Your task to perform on an android device: Go to calendar. Show me events next week Image 0: 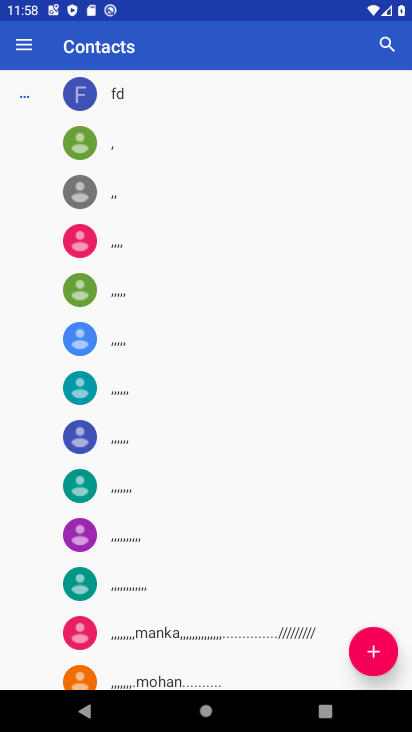
Step 0: press back button
Your task to perform on an android device: Go to calendar. Show me events next week Image 1: 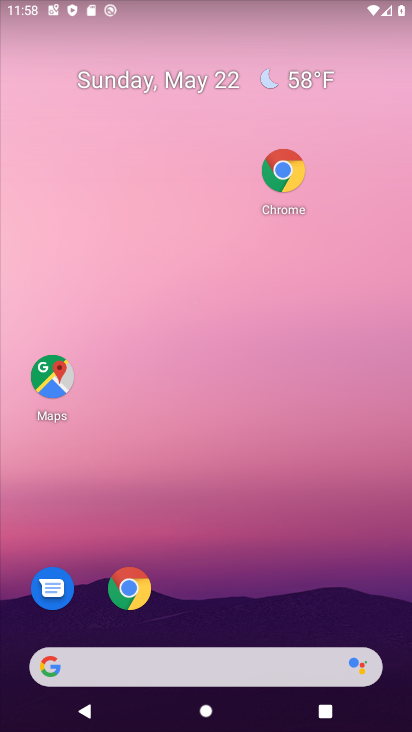
Step 1: drag from (267, 675) to (257, 16)
Your task to perform on an android device: Go to calendar. Show me events next week Image 2: 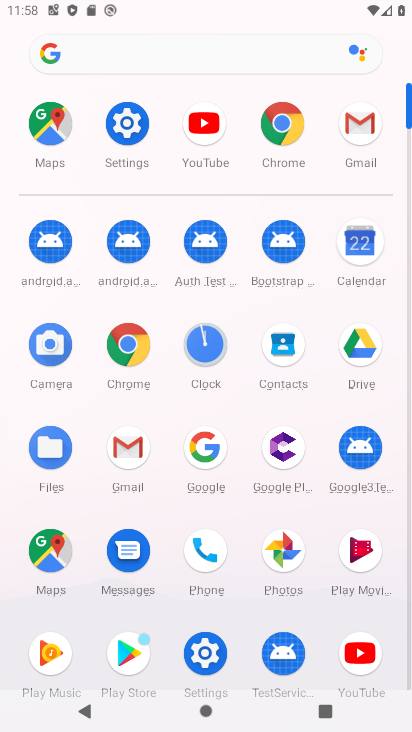
Step 2: click (352, 254)
Your task to perform on an android device: Go to calendar. Show me events next week Image 3: 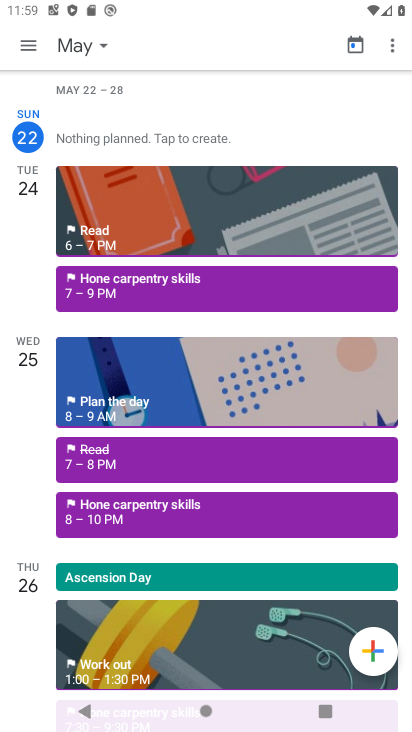
Step 3: click (100, 44)
Your task to perform on an android device: Go to calendar. Show me events next week Image 4: 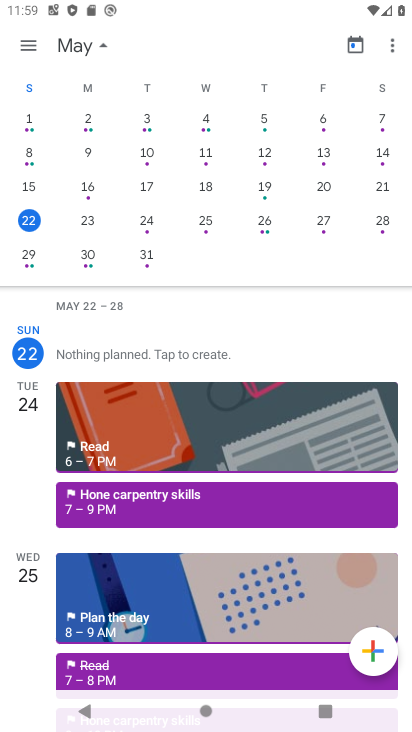
Step 4: drag from (253, 198) to (22, 242)
Your task to perform on an android device: Go to calendar. Show me events next week Image 5: 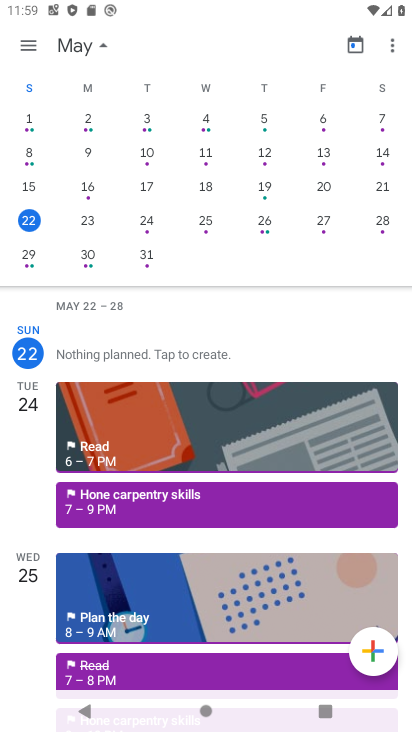
Step 5: drag from (241, 142) to (44, 150)
Your task to perform on an android device: Go to calendar. Show me events next week Image 6: 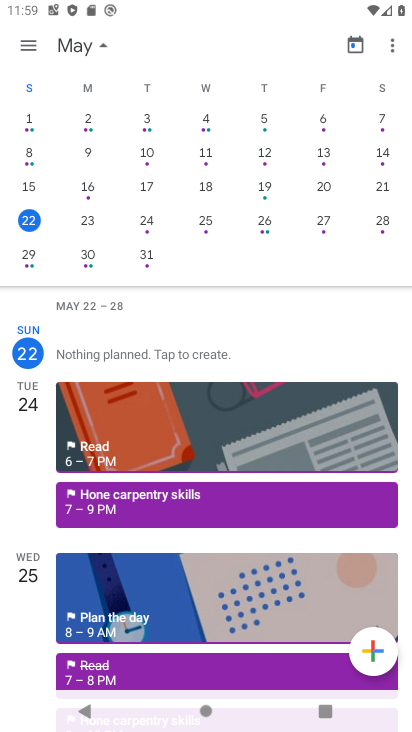
Step 6: drag from (194, 231) to (49, 209)
Your task to perform on an android device: Go to calendar. Show me events next week Image 7: 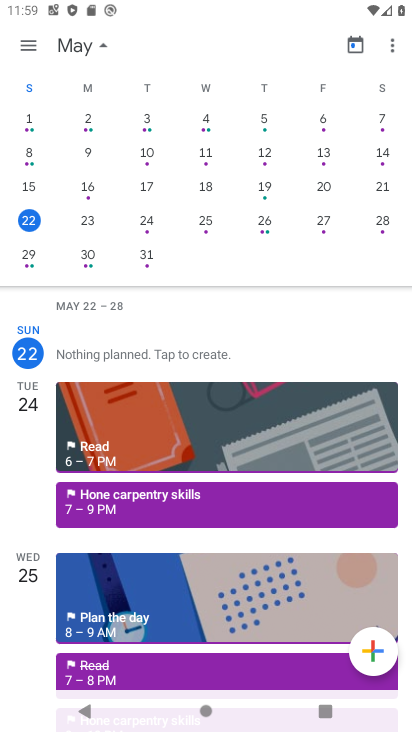
Step 7: drag from (226, 149) to (29, 182)
Your task to perform on an android device: Go to calendar. Show me events next week Image 8: 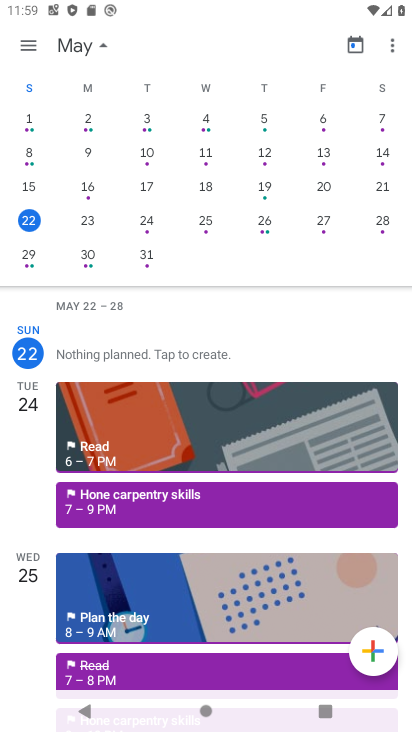
Step 8: drag from (146, 194) to (57, 209)
Your task to perform on an android device: Go to calendar. Show me events next week Image 9: 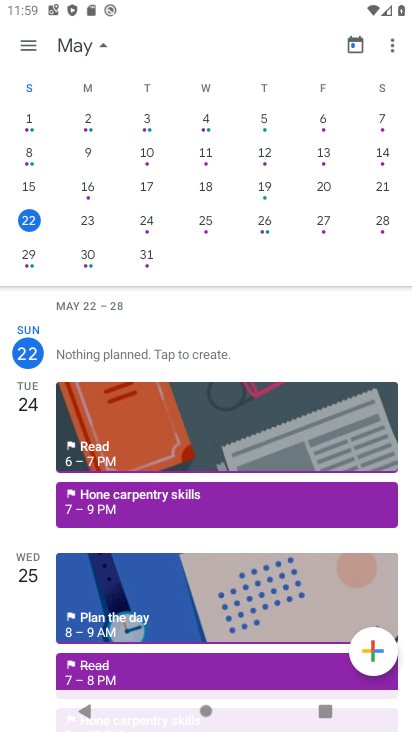
Step 9: drag from (228, 194) to (21, 195)
Your task to perform on an android device: Go to calendar. Show me events next week Image 10: 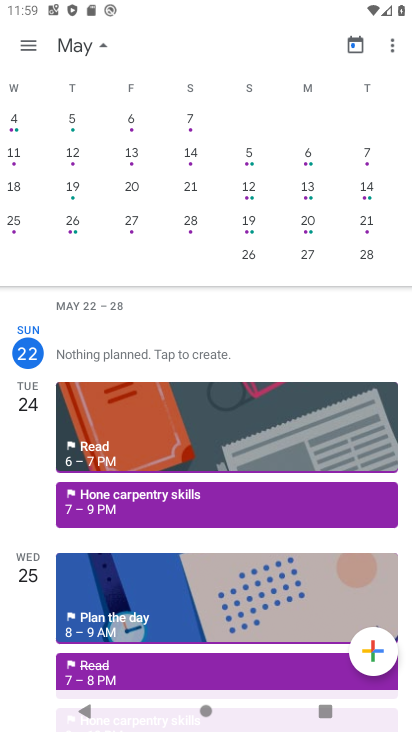
Step 10: drag from (157, 159) to (3, 152)
Your task to perform on an android device: Go to calendar. Show me events next week Image 11: 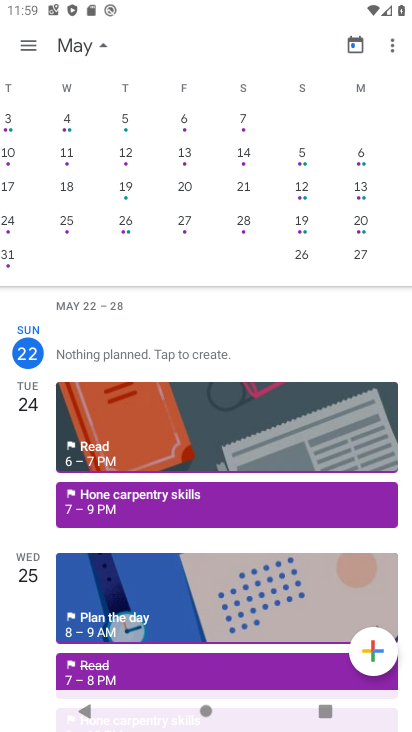
Step 11: drag from (209, 141) to (2, 140)
Your task to perform on an android device: Go to calendar. Show me events next week Image 12: 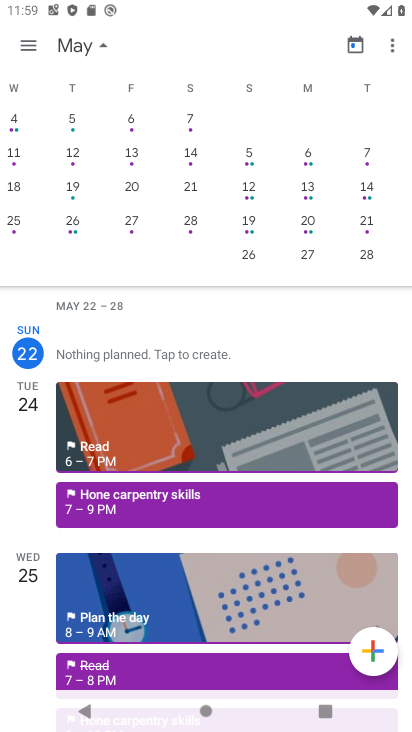
Step 12: drag from (191, 117) to (27, 191)
Your task to perform on an android device: Go to calendar. Show me events next week Image 13: 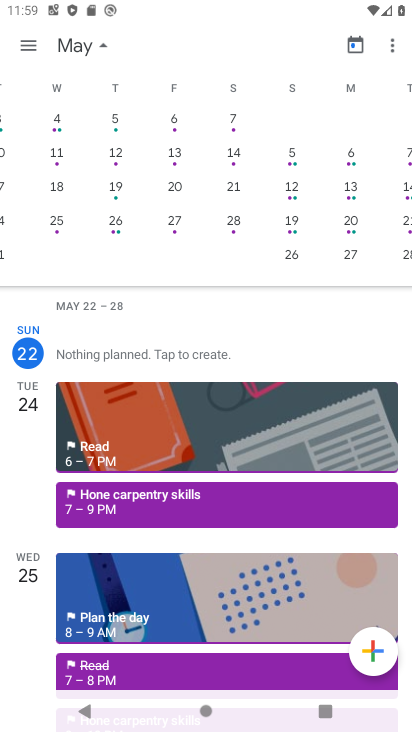
Step 13: drag from (206, 175) to (2, 120)
Your task to perform on an android device: Go to calendar. Show me events next week Image 14: 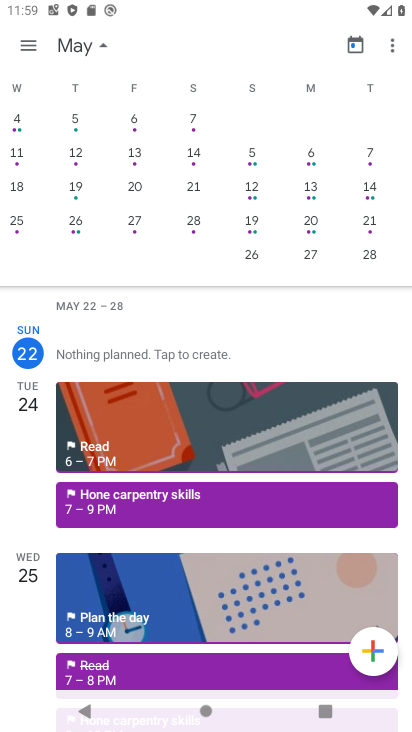
Step 14: drag from (218, 143) to (83, 190)
Your task to perform on an android device: Go to calendar. Show me events next week Image 15: 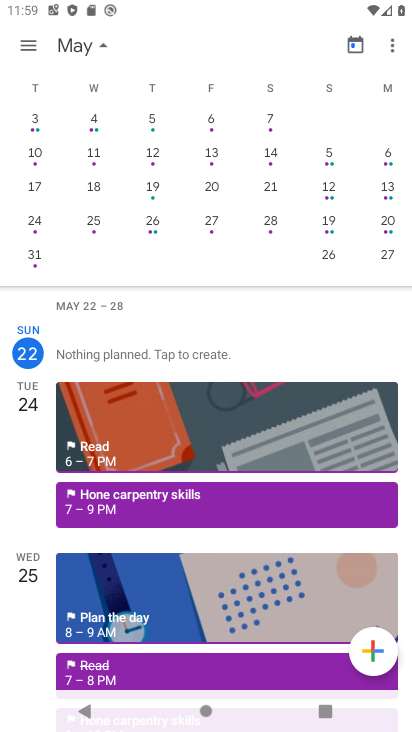
Step 15: drag from (385, 118) to (52, 114)
Your task to perform on an android device: Go to calendar. Show me events next week Image 16: 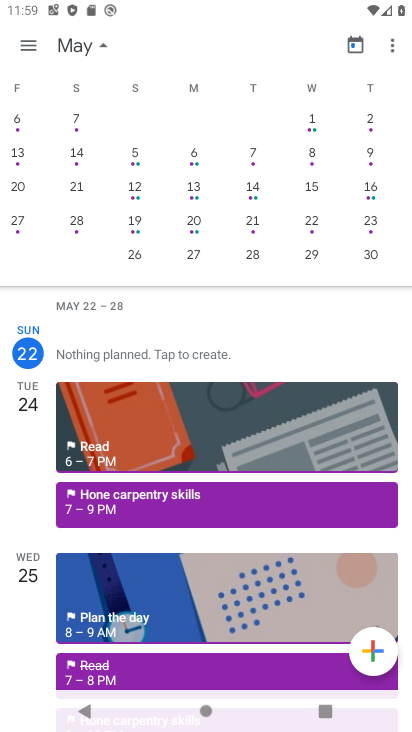
Step 16: drag from (175, 125) to (101, 201)
Your task to perform on an android device: Go to calendar. Show me events next week Image 17: 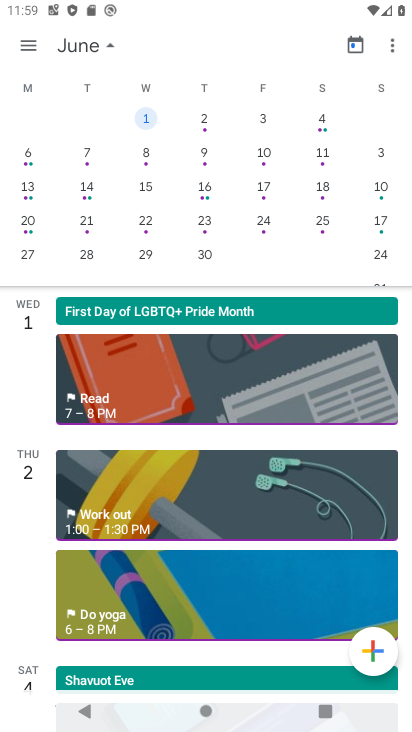
Step 17: click (35, 231)
Your task to perform on an android device: Go to calendar. Show me events next week Image 18: 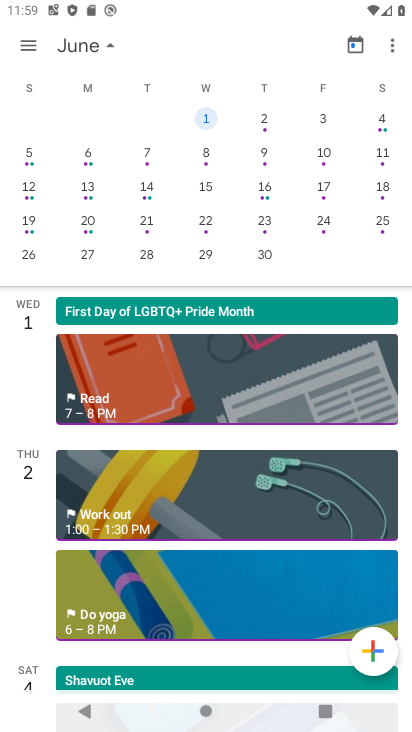
Step 18: drag from (77, 186) to (313, 227)
Your task to perform on an android device: Go to calendar. Show me events next week Image 19: 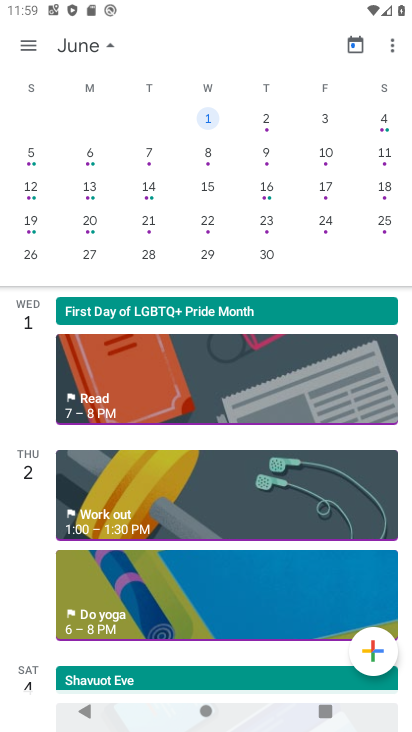
Step 19: drag from (148, 256) to (408, 231)
Your task to perform on an android device: Go to calendar. Show me events next week Image 20: 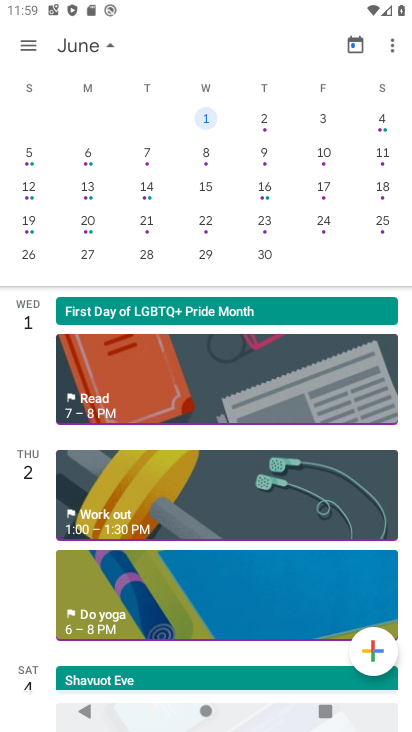
Step 20: drag from (51, 162) to (410, 182)
Your task to perform on an android device: Go to calendar. Show me events next week Image 21: 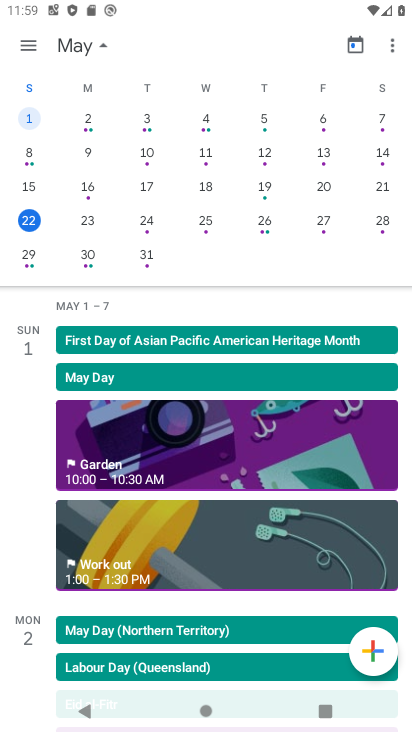
Step 21: drag from (36, 220) to (410, 231)
Your task to perform on an android device: Go to calendar. Show me events next week Image 22: 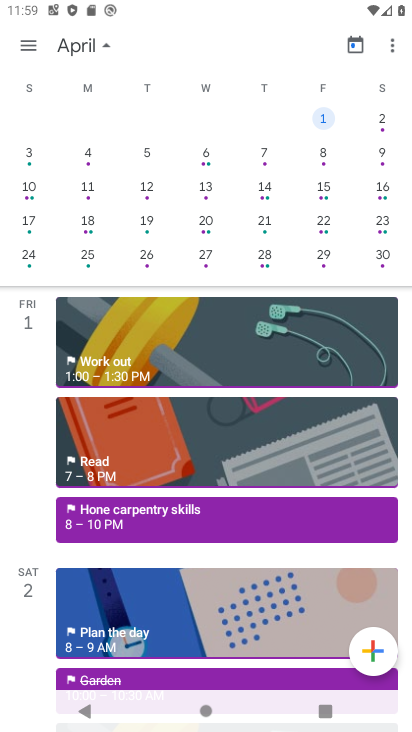
Step 22: drag from (378, 165) to (32, 253)
Your task to perform on an android device: Go to calendar. Show me events next week Image 23: 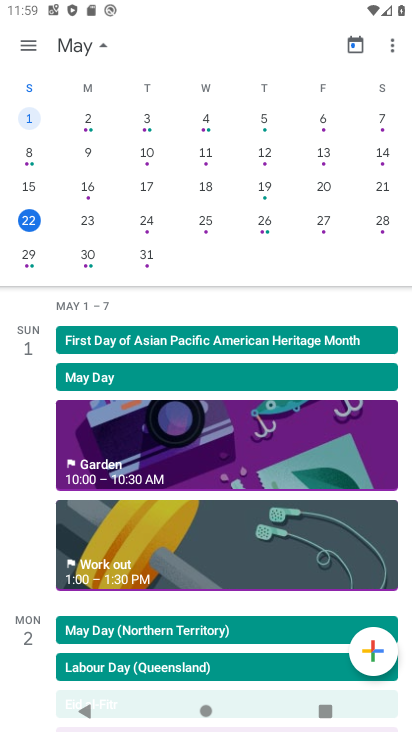
Step 23: click (151, 253)
Your task to perform on an android device: Go to calendar. Show me events next week Image 24: 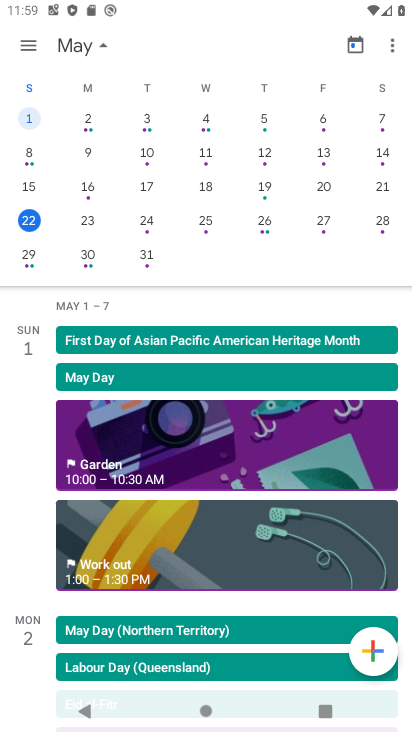
Step 24: click (141, 257)
Your task to perform on an android device: Go to calendar. Show me events next week Image 25: 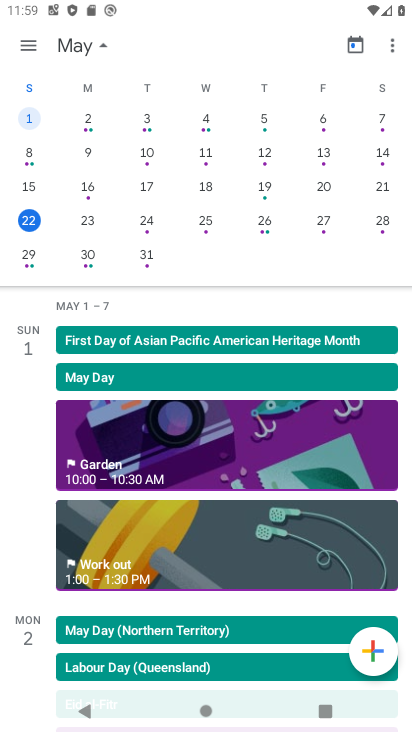
Step 25: click (141, 257)
Your task to perform on an android device: Go to calendar. Show me events next week Image 26: 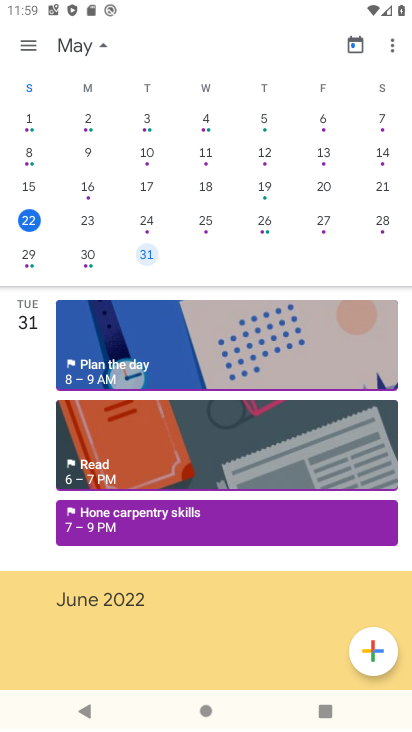
Step 26: task complete